Your task to perform on an android device: install app "The Home Depot" Image 0: 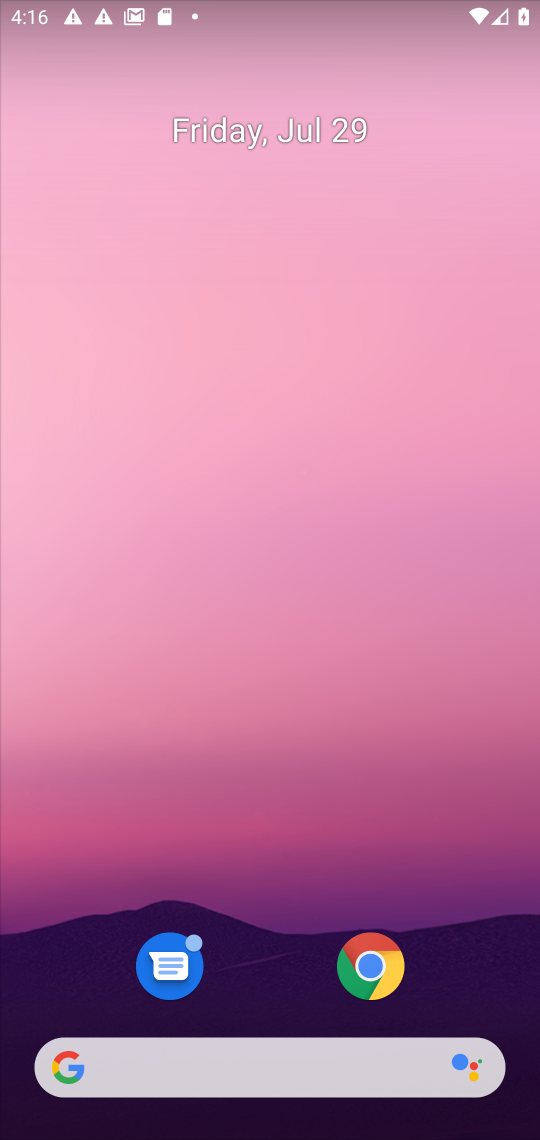
Step 0: drag from (215, 676) to (206, 13)
Your task to perform on an android device: install app "The Home Depot" Image 1: 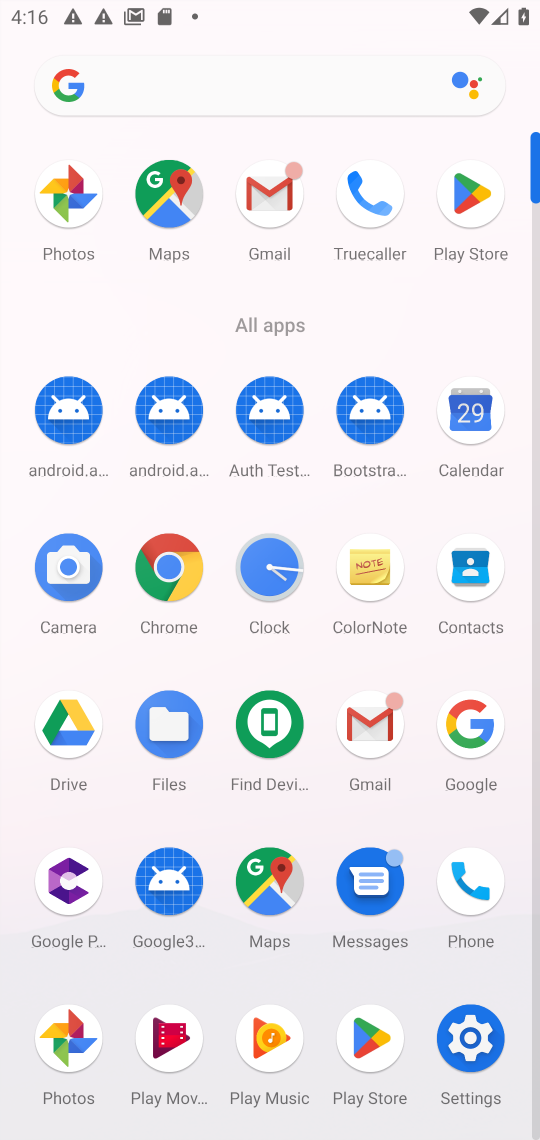
Step 1: click (467, 200)
Your task to perform on an android device: install app "The Home Depot" Image 2: 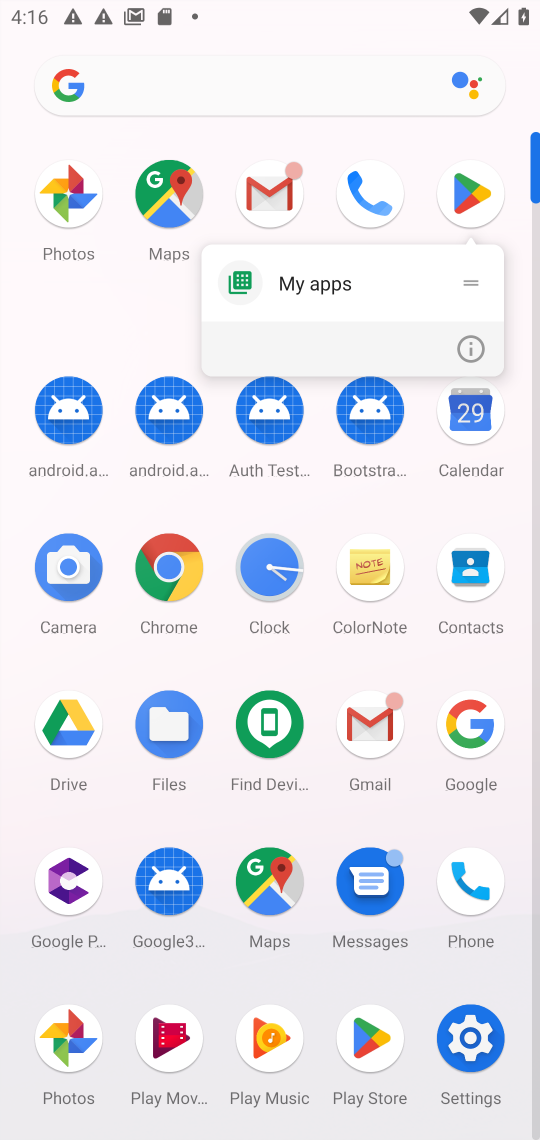
Step 2: click (470, 206)
Your task to perform on an android device: install app "The Home Depot" Image 3: 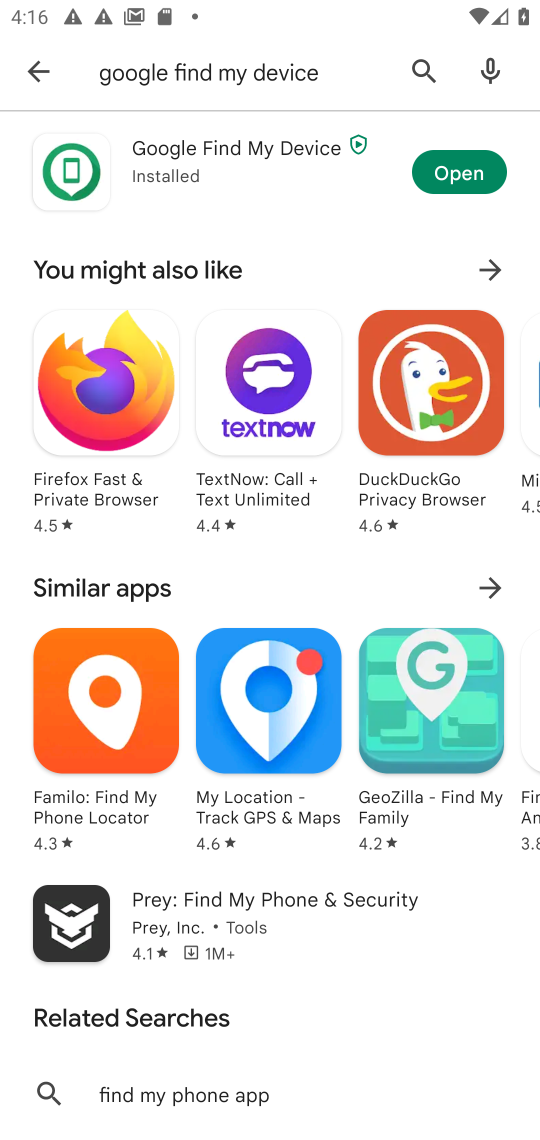
Step 3: click (202, 70)
Your task to perform on an android device: install app "The Home Depot" Image 4: 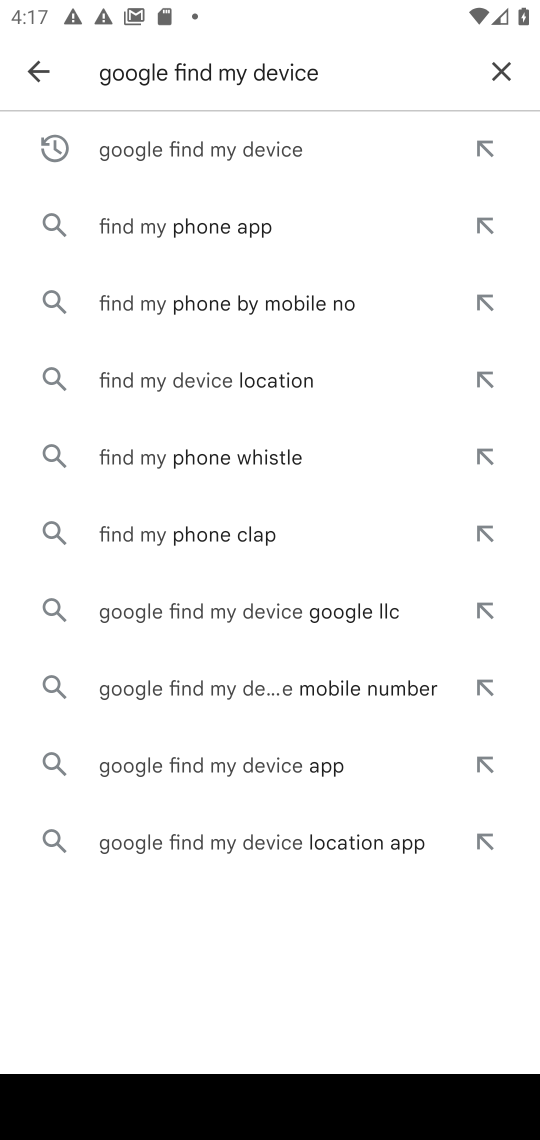
Step 4: click (504, 75)
Your task to perform on an android device: install app "The Home Depot" Image 5: 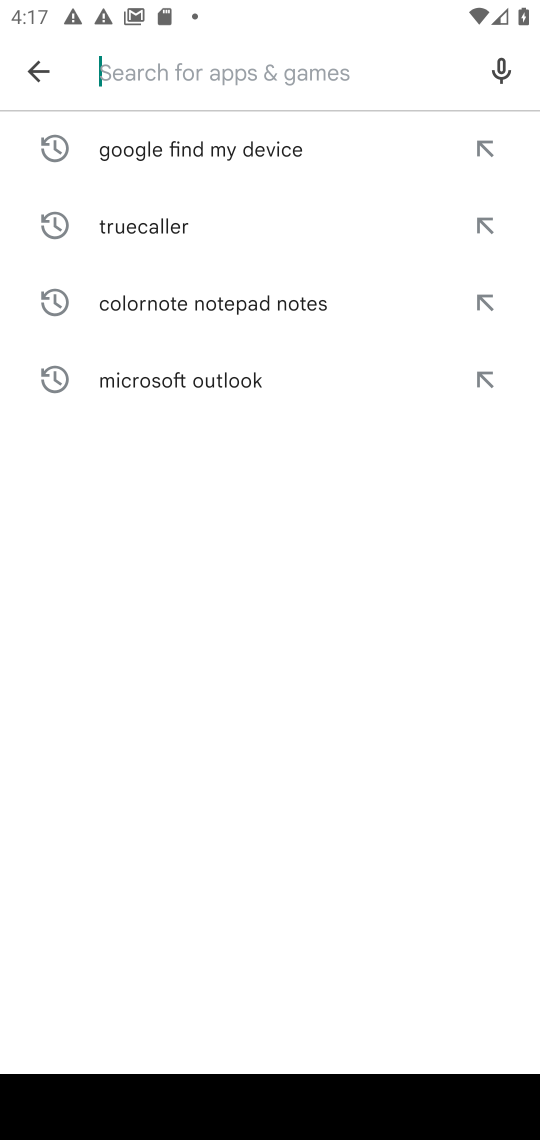
Step 5: type "The home depot"
Your task to perform on an android device: install app "The Home Depot" Image 6: 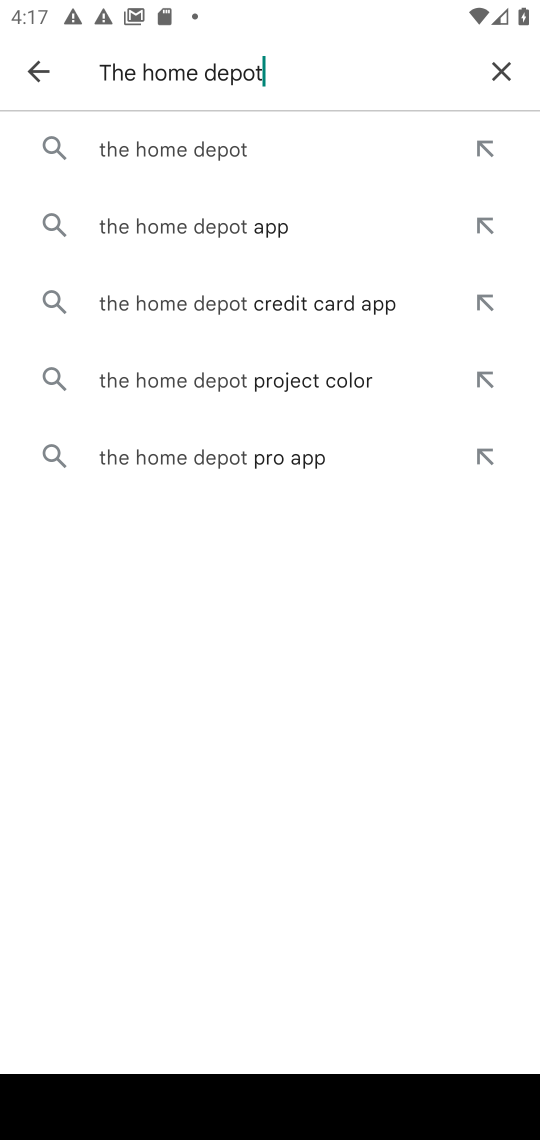
Step 6: click (210, 163)
Your task to perform on an android device: install app "The Home Depot" Image 7: 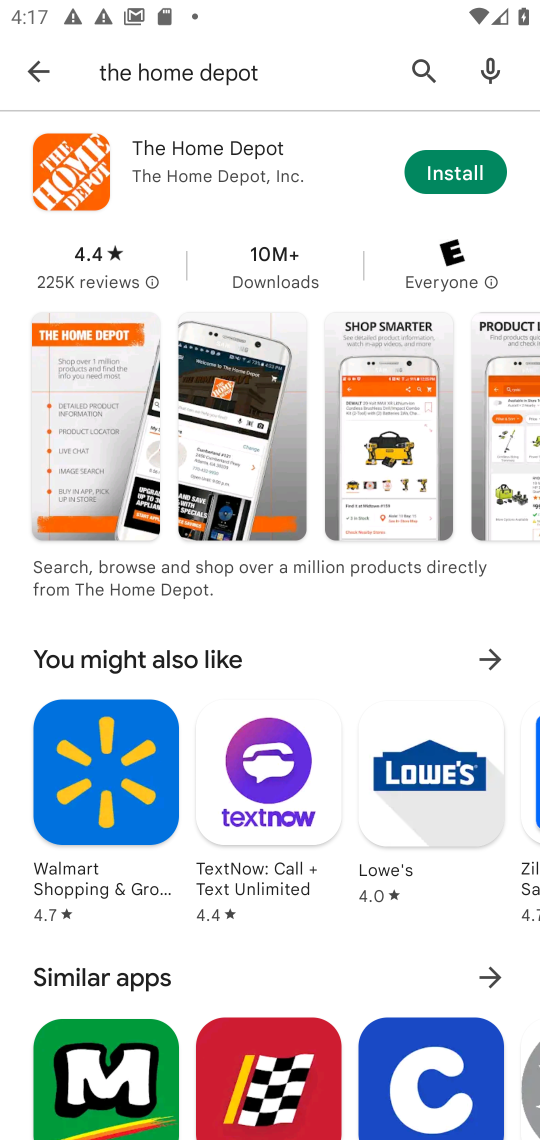
Step 7: click (432, 177)
Your task to perform on an android device: install app "The Home Depot" Image 8: 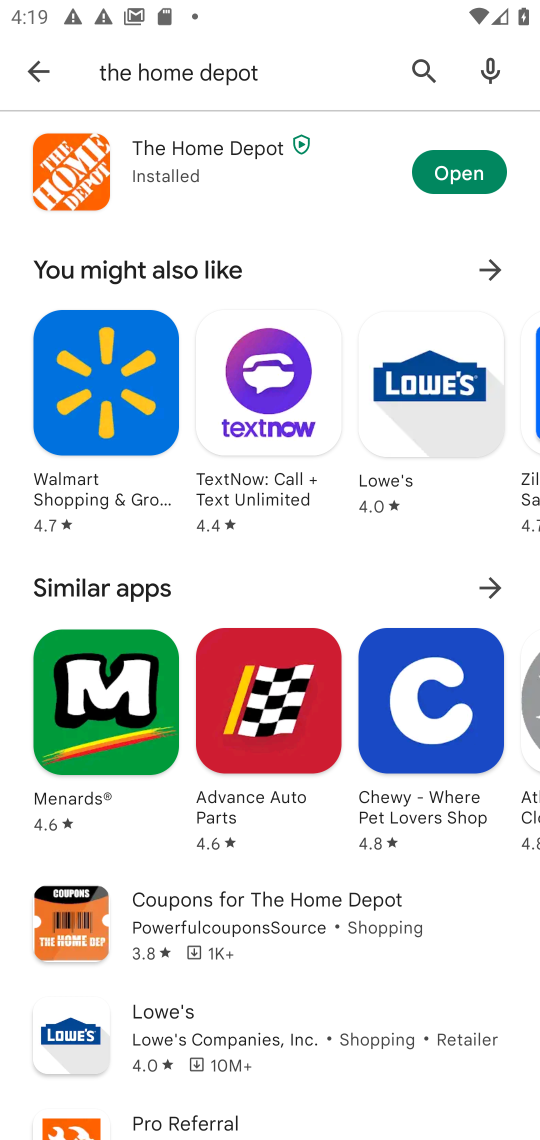
Step 8: task complete